Your task to perform on an android device: Search for panasonic triple a on newegg, select the first entry, and add it to the cart. Image 0: 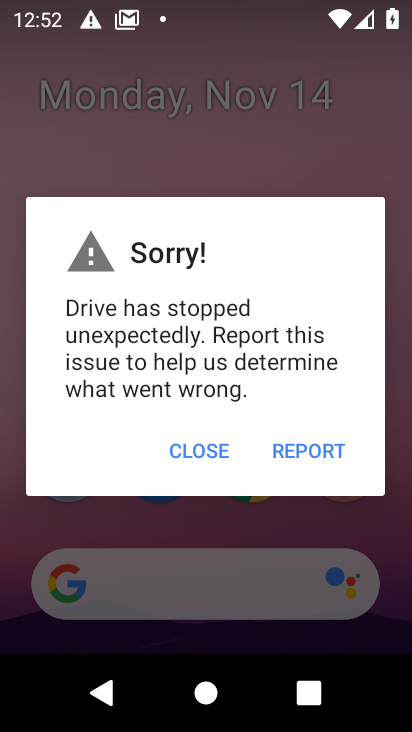
Step 0: press home button
Your task to perform on an android device: Search for panasonic triple a on newegg, select the first entry, and add it to the cart. Image 1: 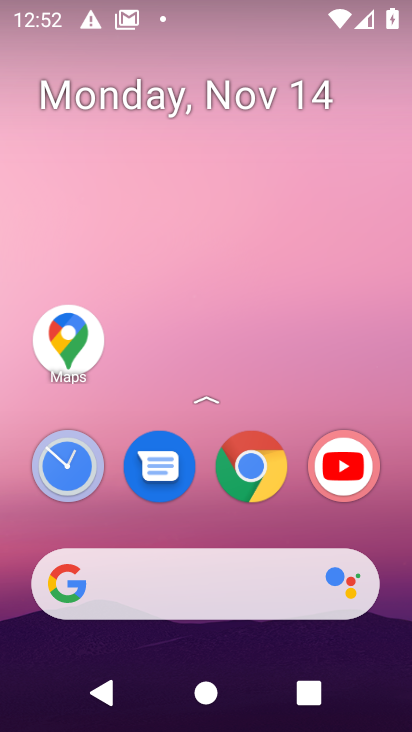
Step 1: click (246, 467)
Your task to perform on an android device: Search for panasonic triple a on newegg, select the first entry, and add it to the cart. Image 2: 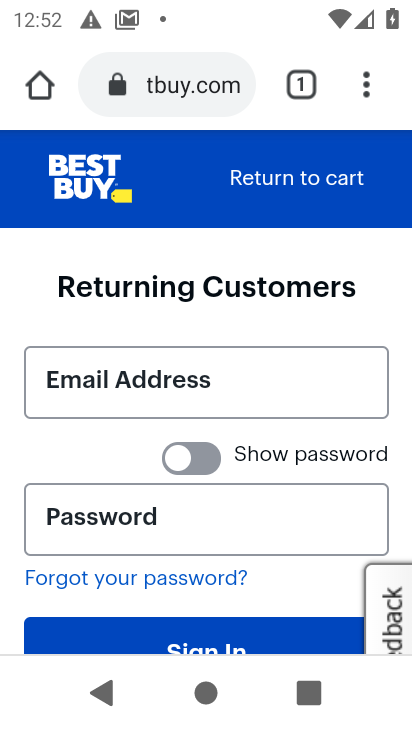
Step 2: click (204, 99)
Your task to perform on an android device: Search for panasonic triple a on newegg, select the first entry, and add it to the cart. Image 3: 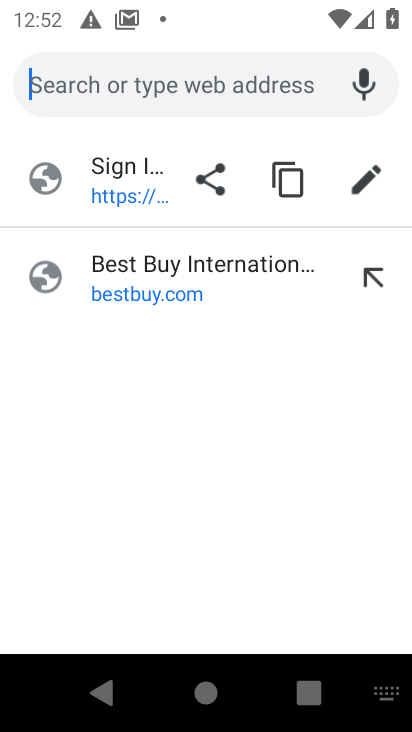
Step 3: type "newegg"
Your task to perform on an android device: Search for panasonic triple a on newegg, select the first entry, and add it to the cart. Image 4: 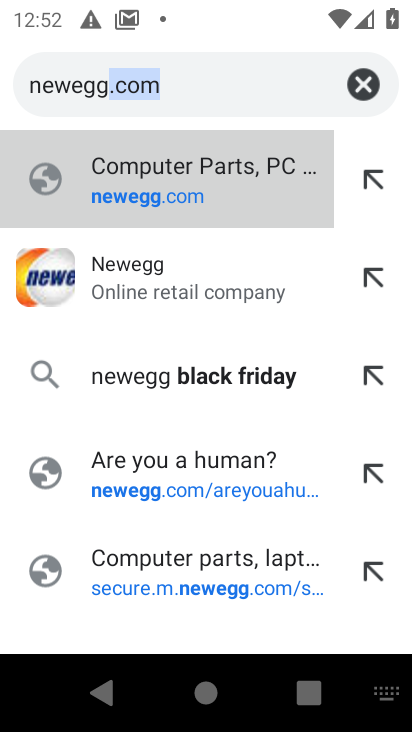
Step 4: press enter
Your task to perform on an android device: Search for panasonic triple a on newegg, select the first entry, and add it to the cart. Image 5: 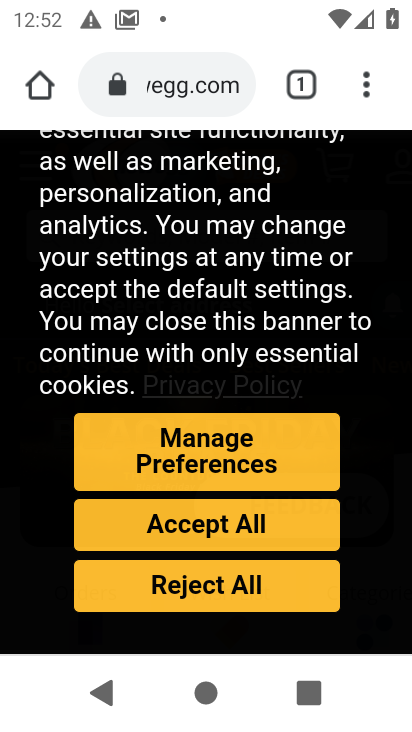
Step 5: click (323, 232)
Your task to perform on an android device: Search for panasonic triple a on newegg, select the first entry, and add it to the cart. Image 6: 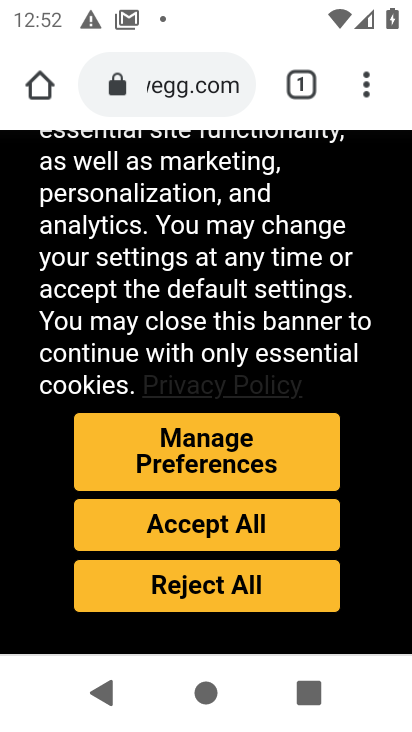
Step 6: click (226, 526)
Your task to perform on an android device: Search for panasonic triple a on newegg, select the first entry, and add it to the cart. Image 7: 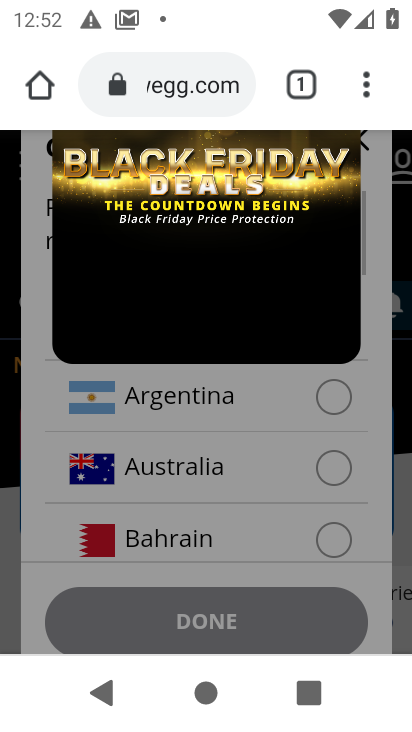
Step 7: click (240, 509)
Your task to perform on an android device: Search for panasonic triple a on newegg, select the first entry, and add it to the cart. Image 8: 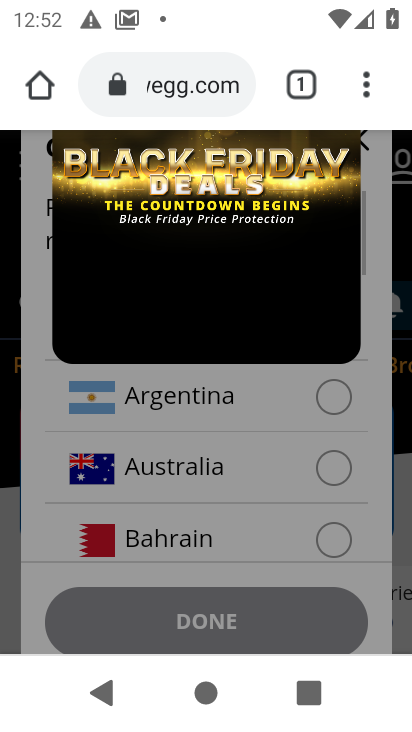
Step 8: task complete